Your task to perform on an android device: turn on javascript in the chrome app Image 0: 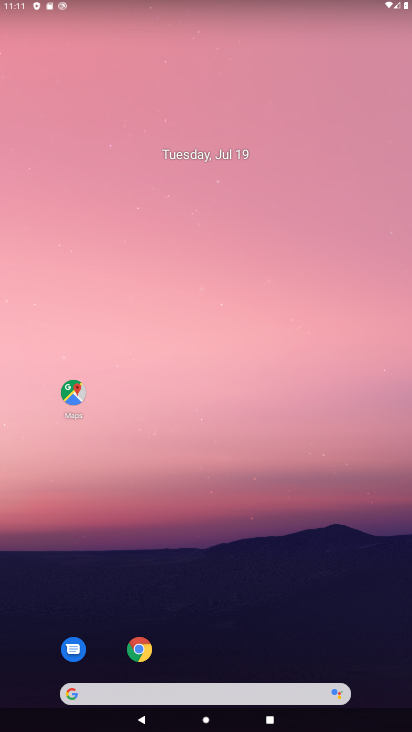
Step 0: drag from (221, 705) to (411, 0)
Your task to perform on an android device: turn on javascript in the chrome app Image 1: 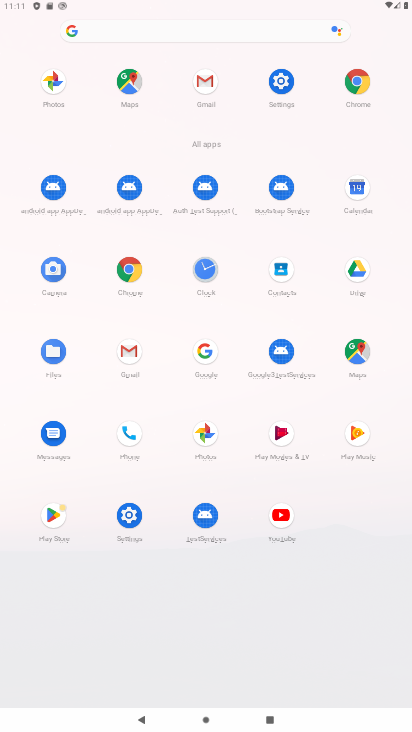
Step 1: click (128, 272)
Your task to perform on an android device: turn on javascript in the chrome app Image 2: 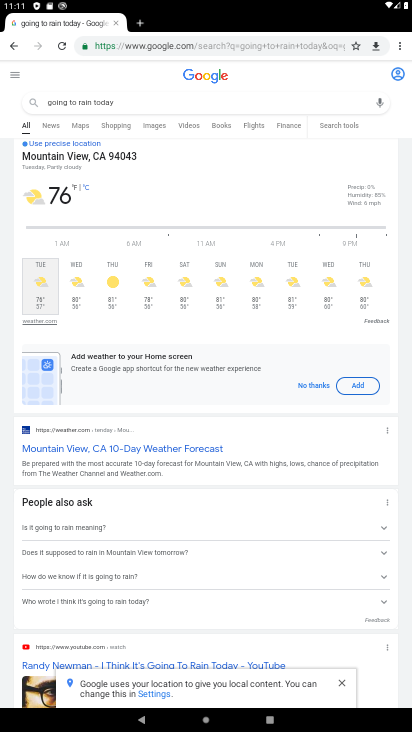
Step 2: drag from (403, 40) to (319, 280)
Your task to perform on an android device: turn on javascript in the chrome app Image 3: 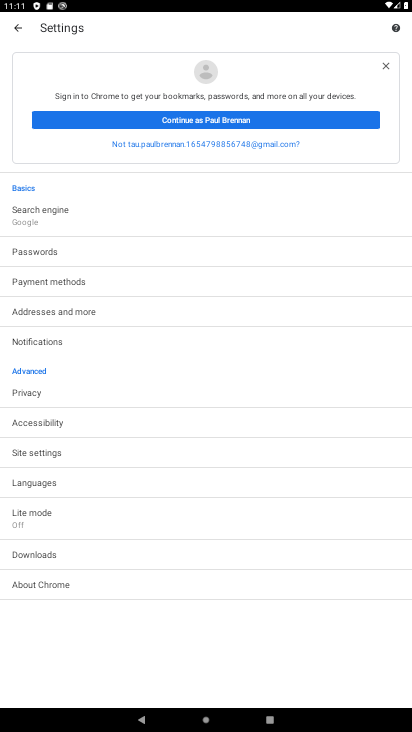
Step 3: click (43, 452)
Your task to perform on an android device: turn on javascript in the chrome app Image 4: 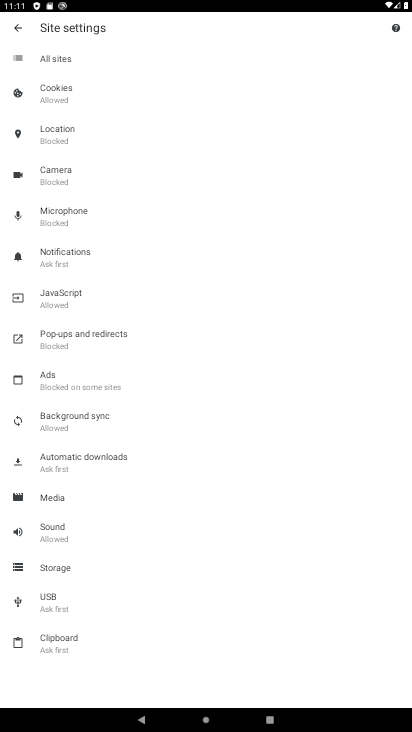
Step 4: click (61, 298)
Your task to perform on an android device: turn on javascript in the chrome app Image 5: 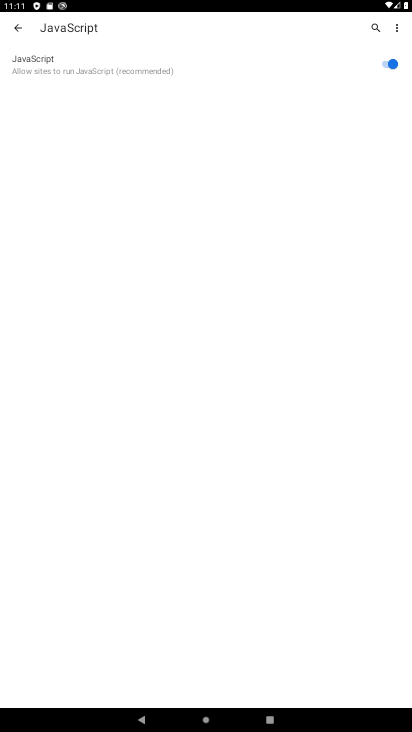
Step 5: task complete